Your task to perform on an android device: turn off wifi Image 0: 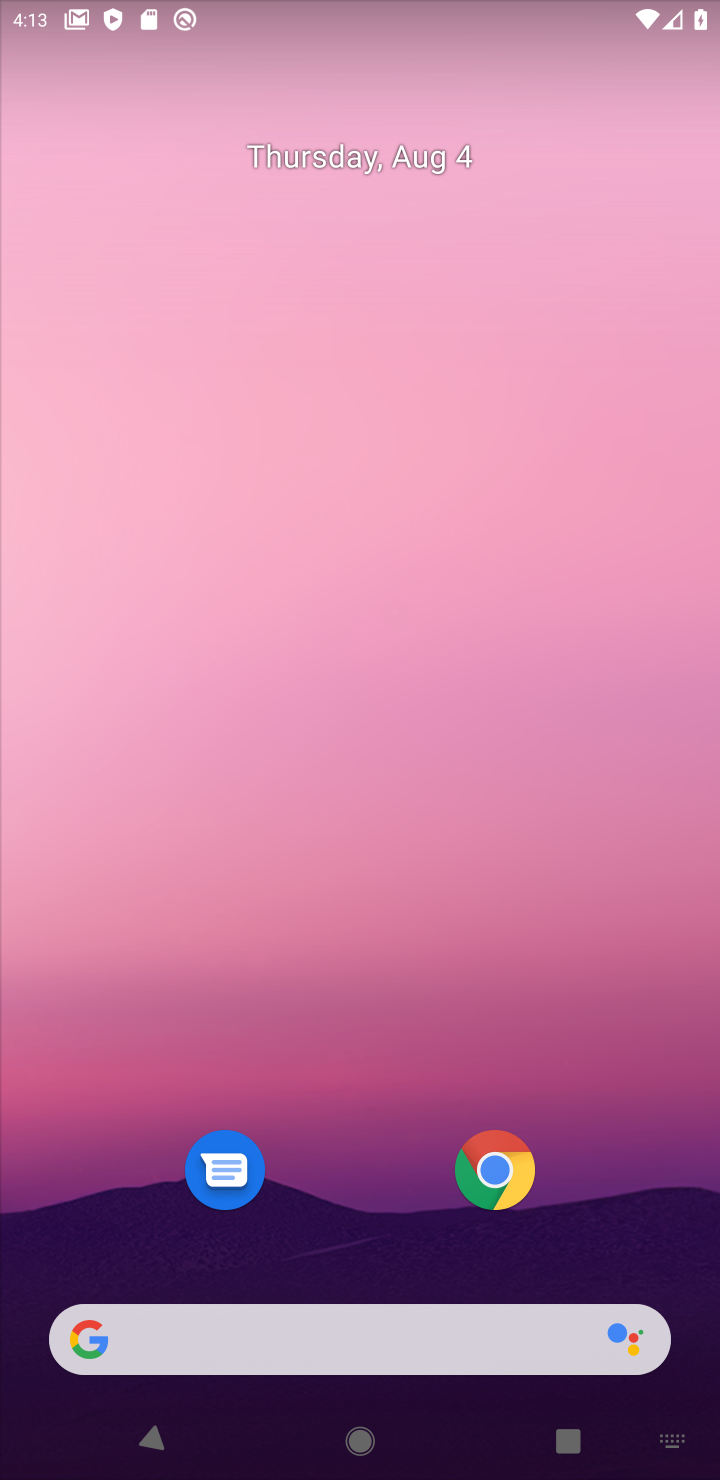
Step 0: drag from (650, 1217) to (475, 301)
Your task to perform on an android device: turn off wifi Image 1: 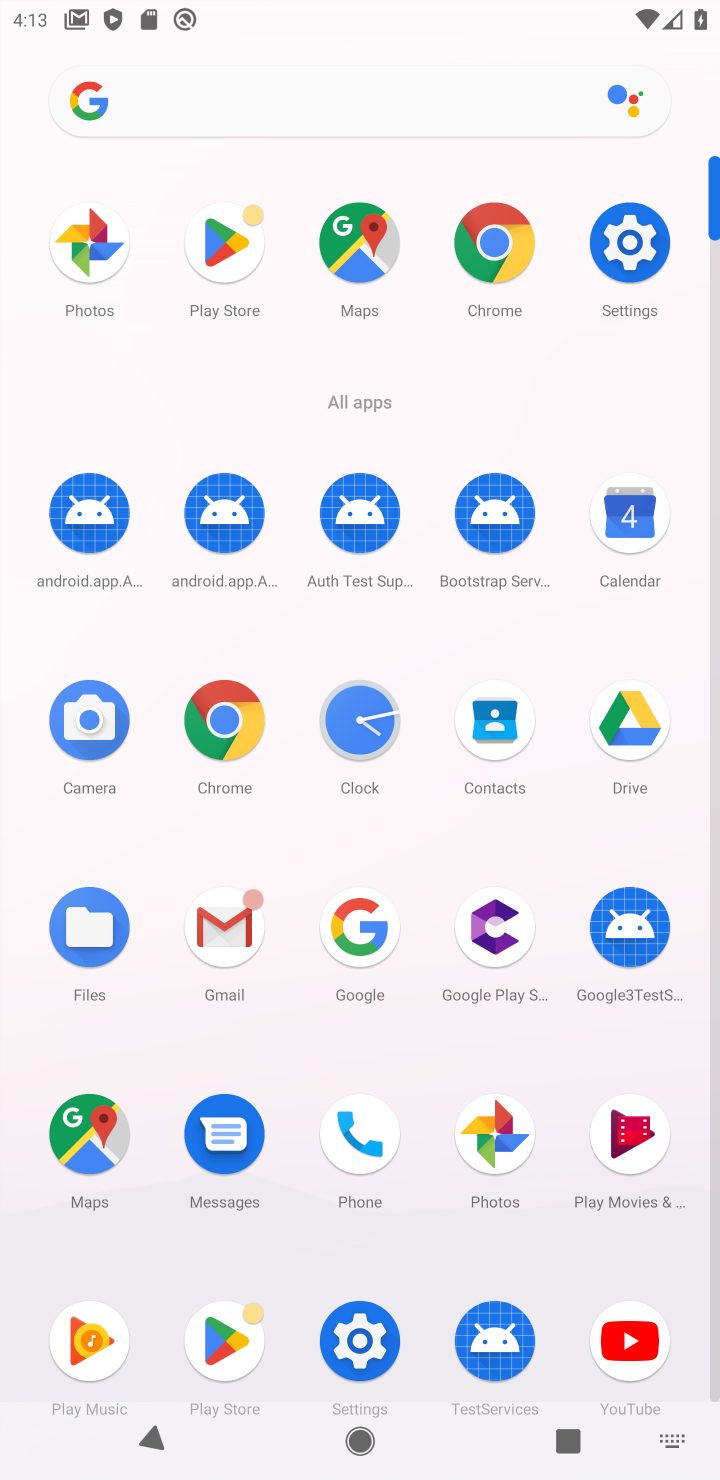
Step 1: click (628, 257)
Your task to perform on an android device: turn off wifi Image 2: 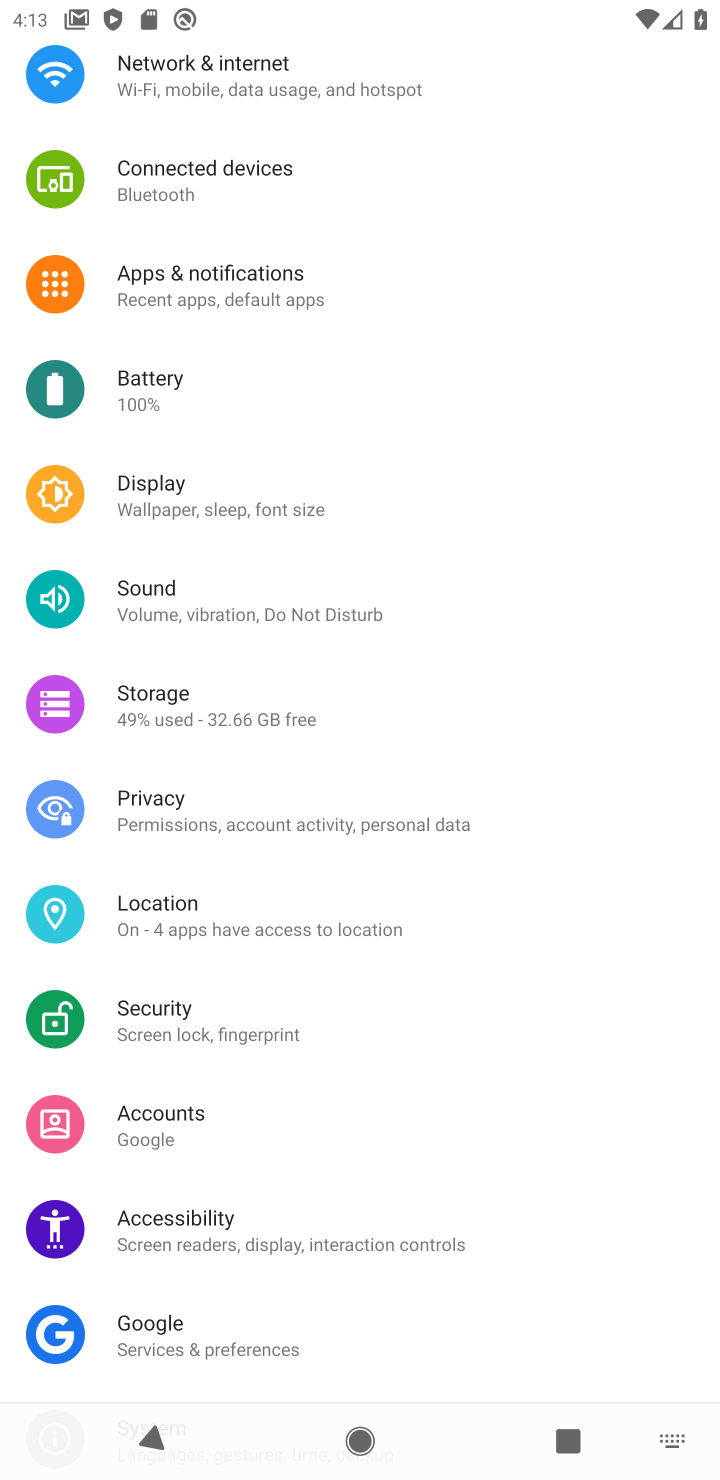
Step 2: drag from (497, 217) to (403, 1047)
Your task to perform on an android device: turn off wifi Image 3: 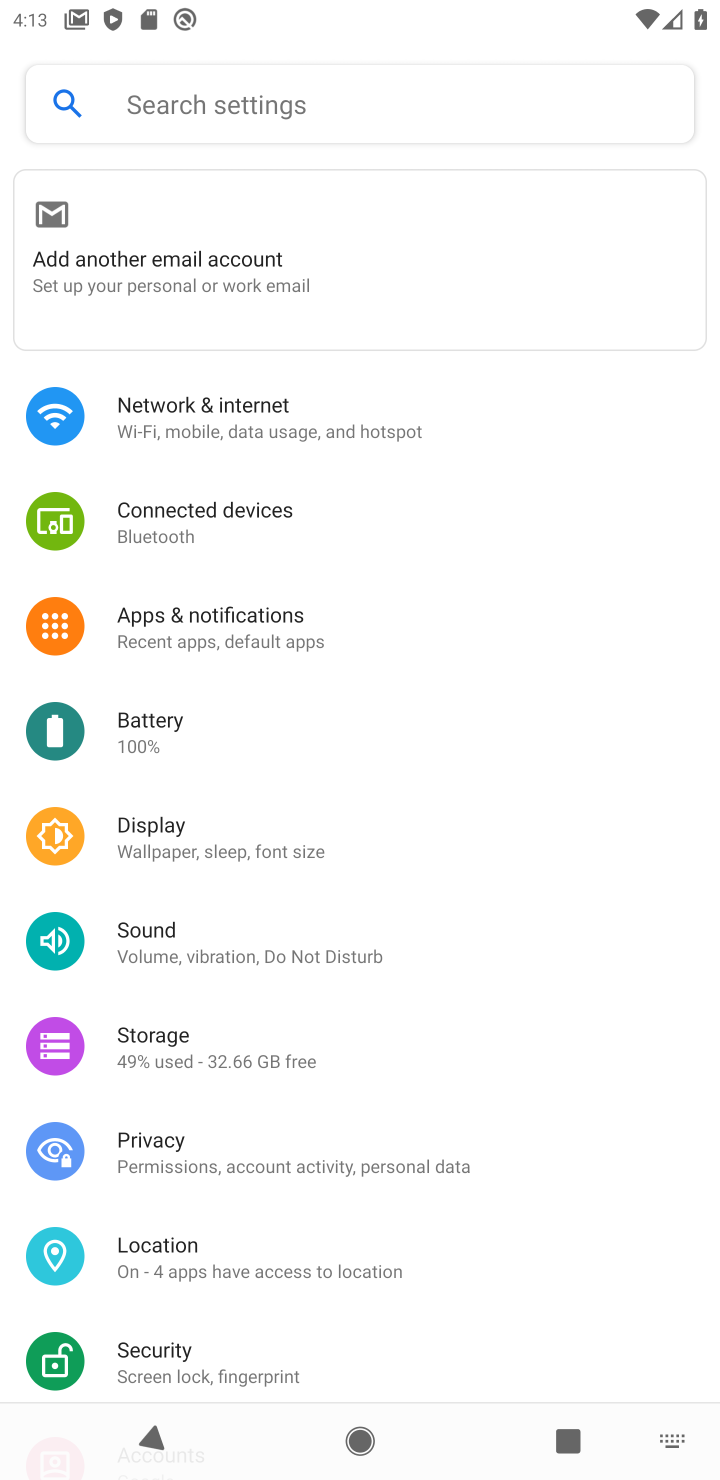
Step 3: click (376, 420)
Your task to perform on an android device: turn off wifi Image 4: 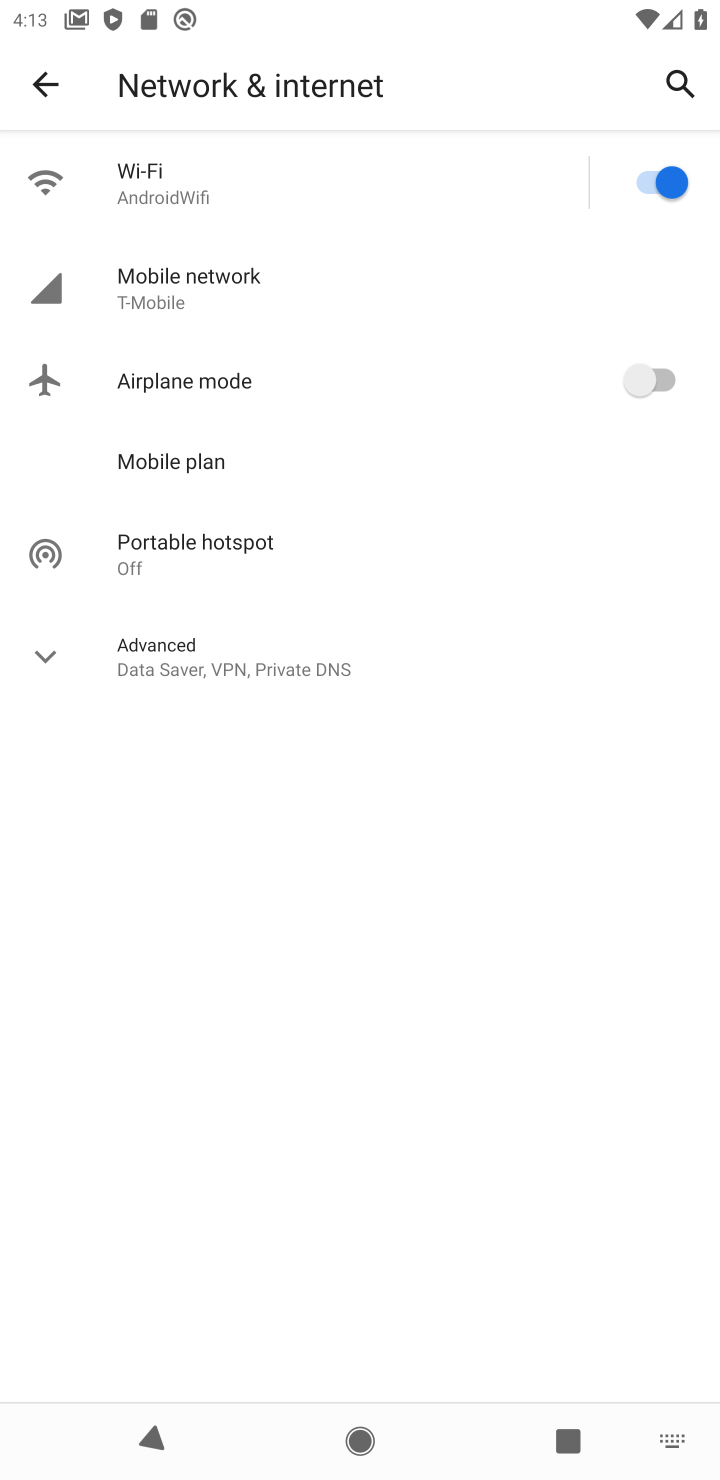
Step 4: click (654, 182)
Your task to perform on an android device: turn off wifi Image 5: 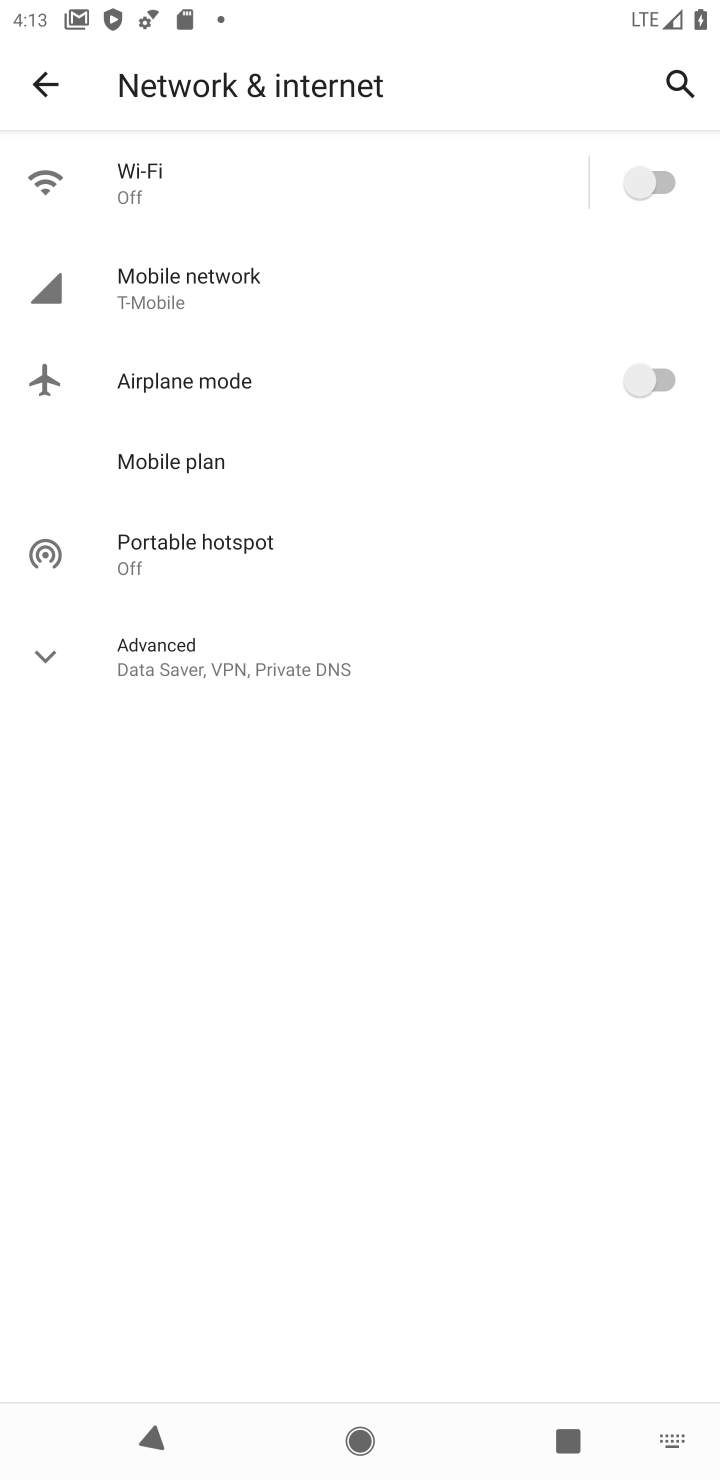
Step 5: task complete